Your task to perform on an android device: turn notification dots on Image 0: 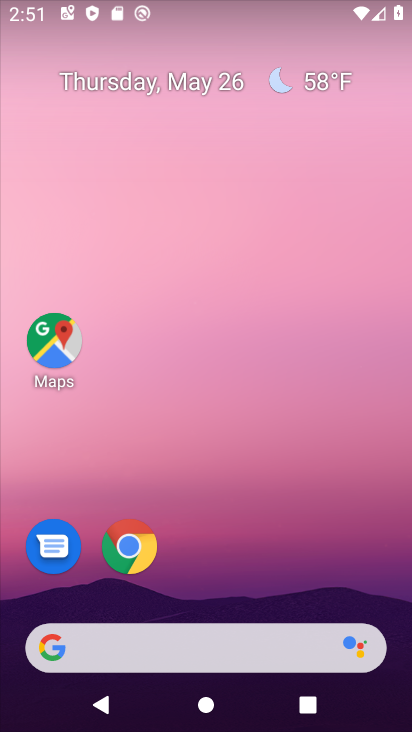
Step 0: drag from (248, 601) to (265, 3)
Your task to perform on an android device: turn notification dots on Image 1: 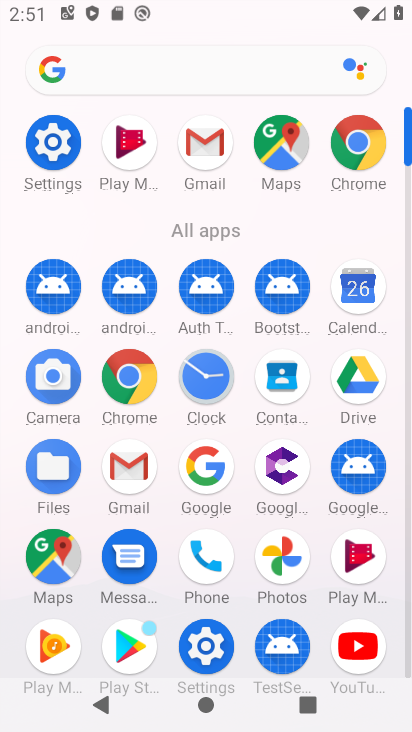
Step 1: click (50, 138)
Your task to perform on an android device: turn notification dots on Image 2: 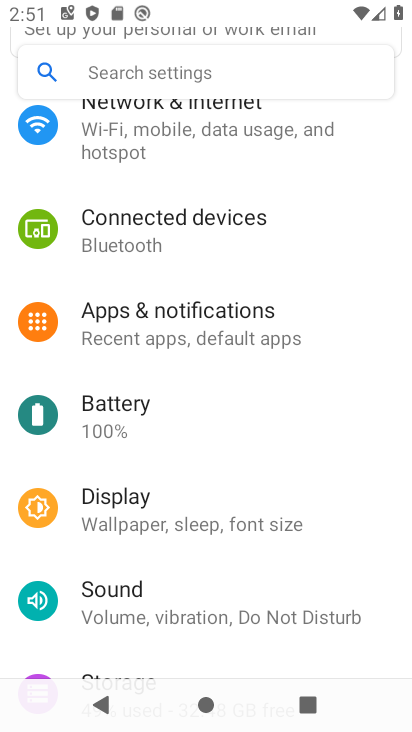
Step 2: click (277, 302)
Your task to perform on an android device: turn notification dots on Image 3: 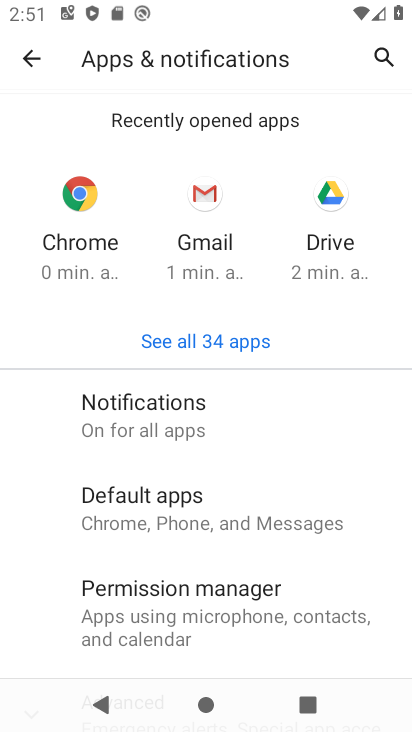
Step 3: click (215, 416)
Your task to perform on an android device: turn notification dots on Image 4: 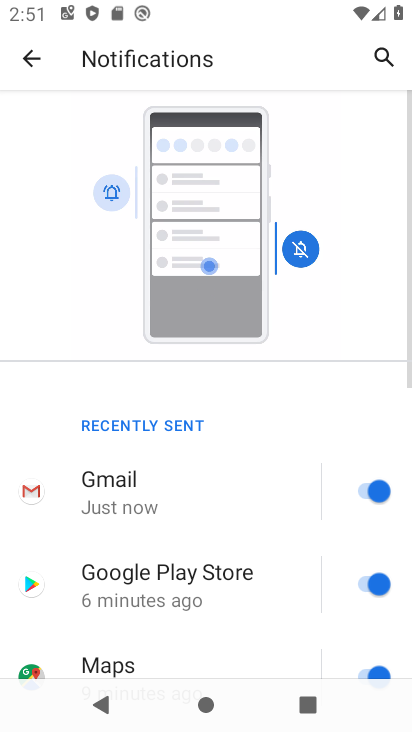
Step 4: drag from (260, 642) to (283, 82)
Your task to perform on an android device: turn notification dots on Image 5: 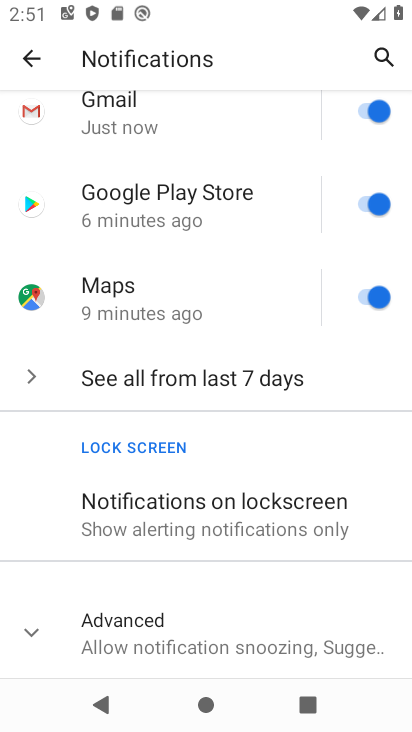
Step 5: click (123, 638)
Your task to perform on an android device: turn notification dots on Image 6: 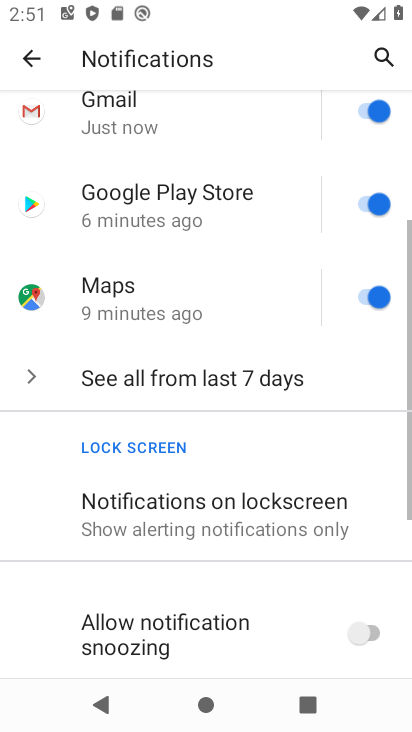
Step 6: task complete